Your task to perform on an android device: add a contact in the contacts app Image 0: 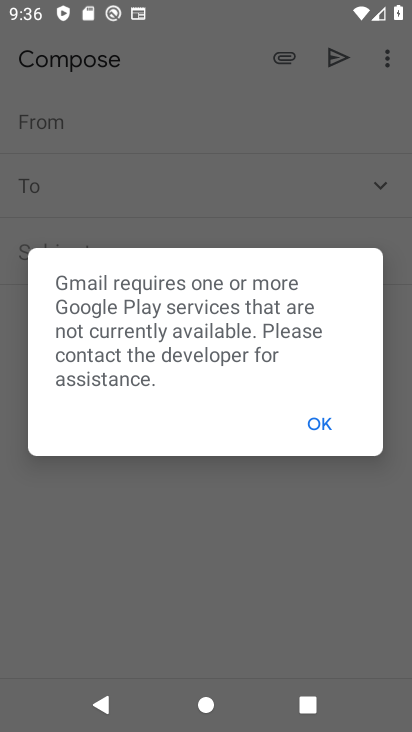
Step 0: press back button
Your task to perform on an android device: add a contact in the contacts app Image 1: 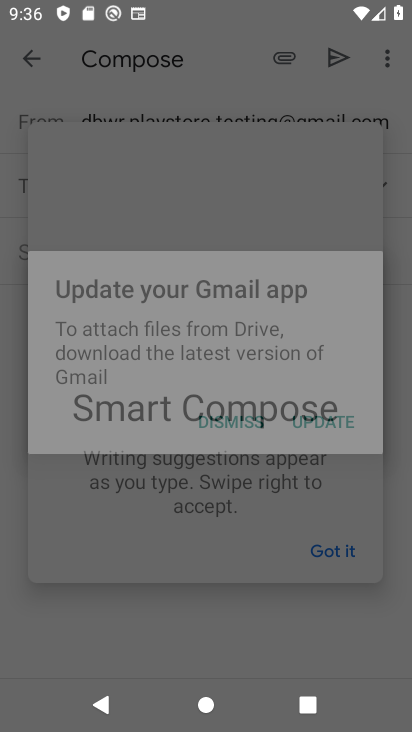
Step 1: press home button
Your task to perform on an android device: add a contact in the contacts app Image 2: 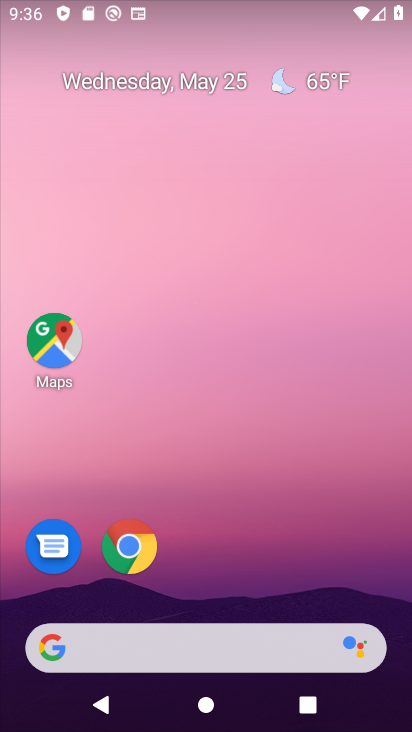
Step 2: drag from (292, 522) to (207, 45)
Your task to perform on an android device: add a contact in the contacts app Image 3: 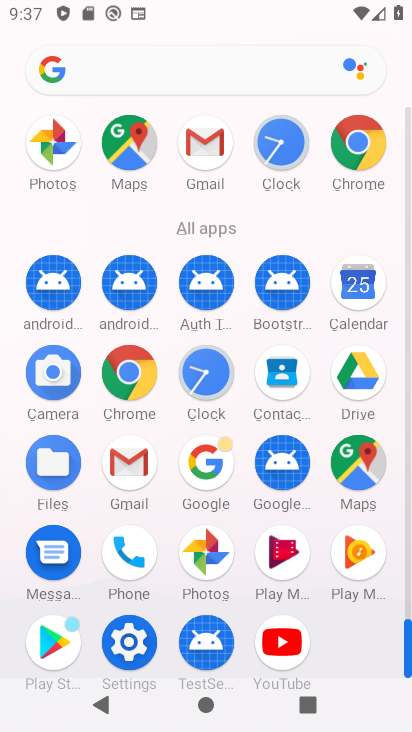
Step 3: drag from (18, 578) to (15, 211)
Your task to perform on an android device: add a contact in the contacts app Image 4: 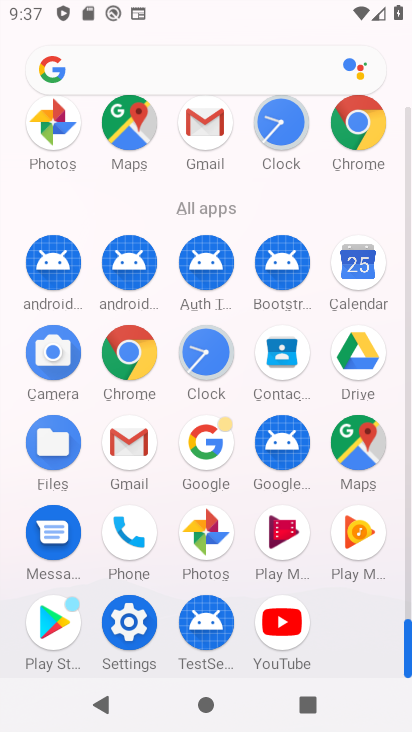
Step 4: click (281, 349)
Your task to perform on an android device: add a contact in the contacts app Image 5: 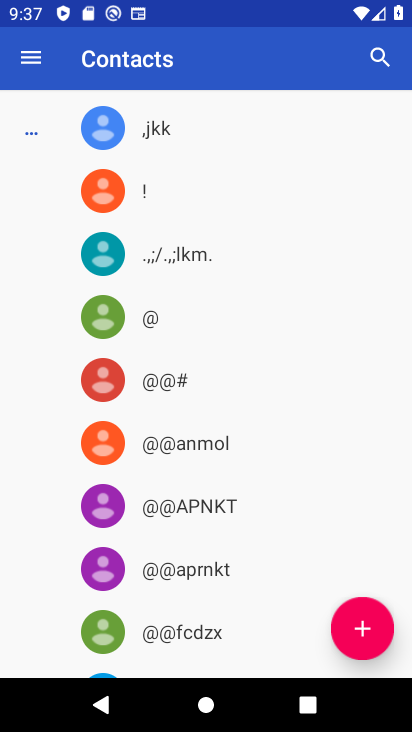
Step 5: task complete